Your task to perform on an android device: open app "Firefox Browser" (install if not already installed) and go to login screen Image 0: 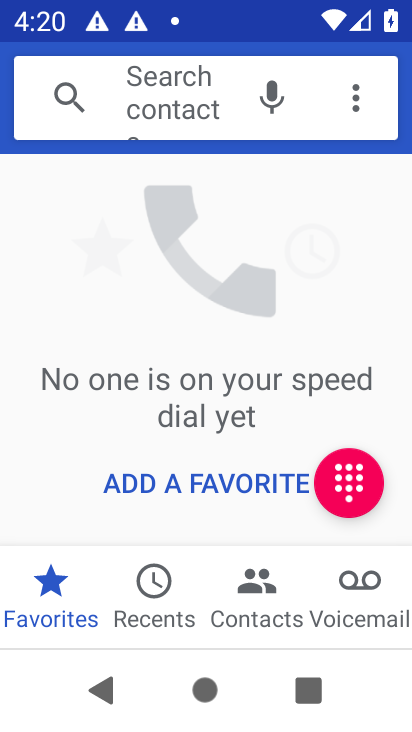
Step 0: press home button
Your task to perform on an android device: open app "Firefox Browser" (install if not already installed) and go to login screen Image 1: 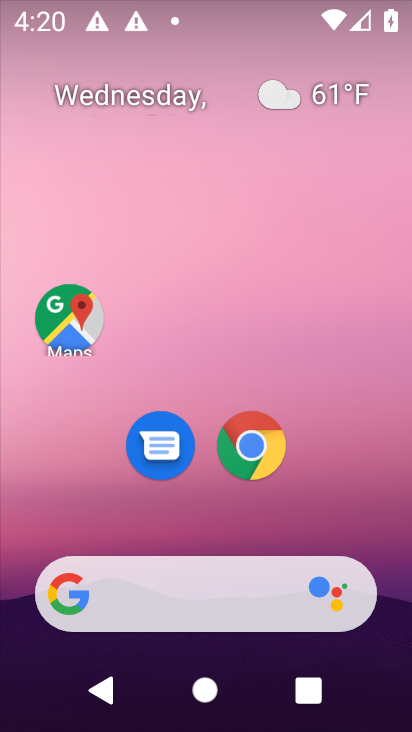
Step 1: drag from (208, 544) to (272, 16)
Your task to perform on an android device: open app "Firefox Browser" (install if not already installed) and go to login screen Image 2: 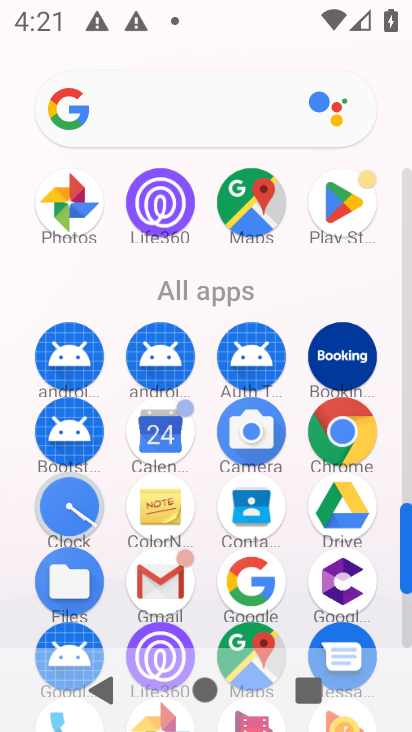
Step 2: click (342, 227)
Your task to perform on an android device: open app "Firefox Browser" (install if not already installed) and go to login screen Image 3: 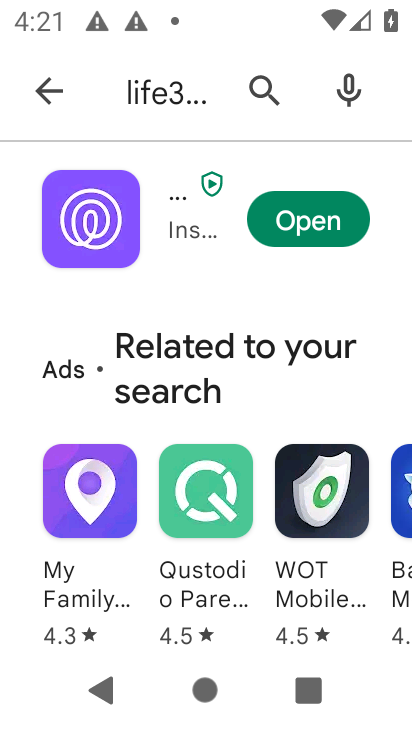
Step 3: click (162, 103)
Your task to perform on an android device: open app "Firefox Browser" (install if not already installed) and go to login screen Image 4: 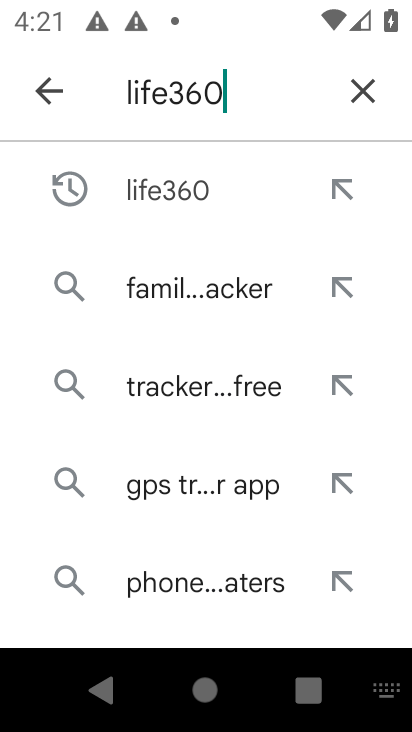
Step 4: click (359, 98)
Your task to perform on an android device: open app "Firefox Browser" (install if not already installed) and go to login screen Image 5: 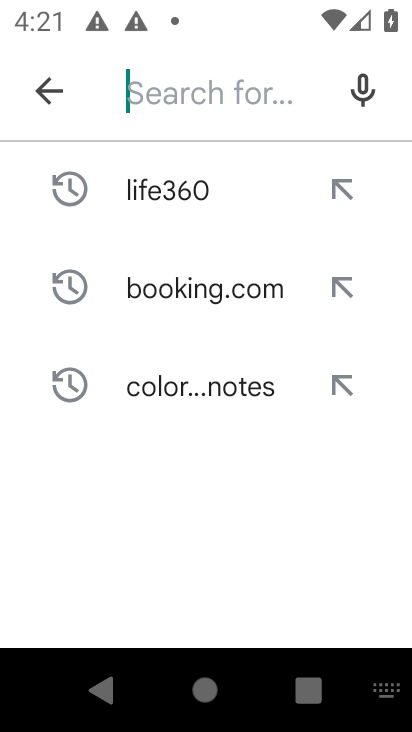
Step 5: type "firefox browser"
Your task to perform on an android device: open app "Firefox Browser" (install if not already installed) and go to login screen Image 6: 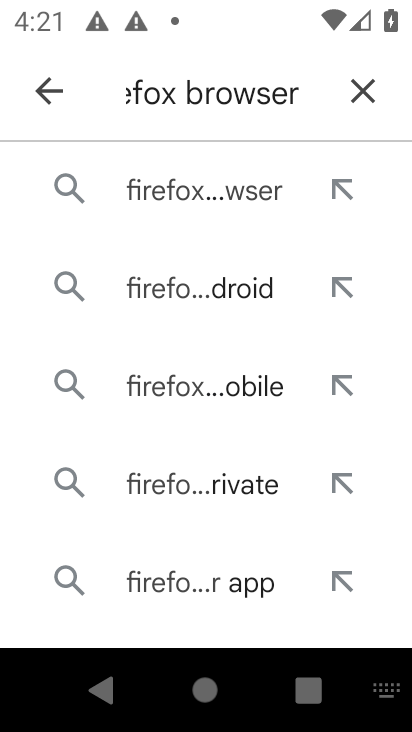
Step 6: click (203, 212)
Your task to perform on an android device: open app "Firefox Browser" (install if not already installed) and go to login screen Image 7: 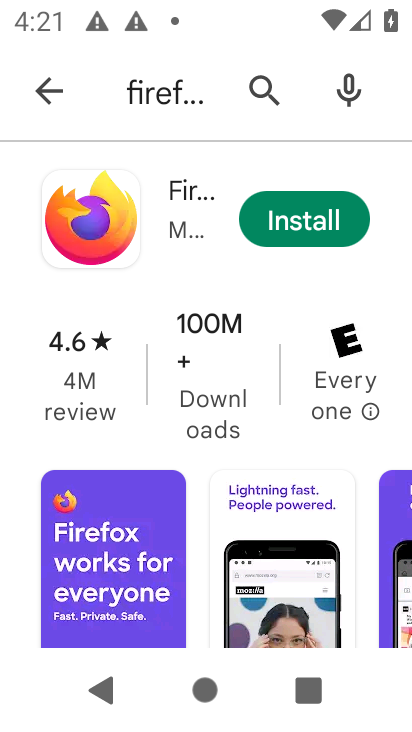
Step 7: click (321, 229)
Your task to perform on an android device: open app "Firefox Browser" (install if not already installed) and go to login screen Image 8: 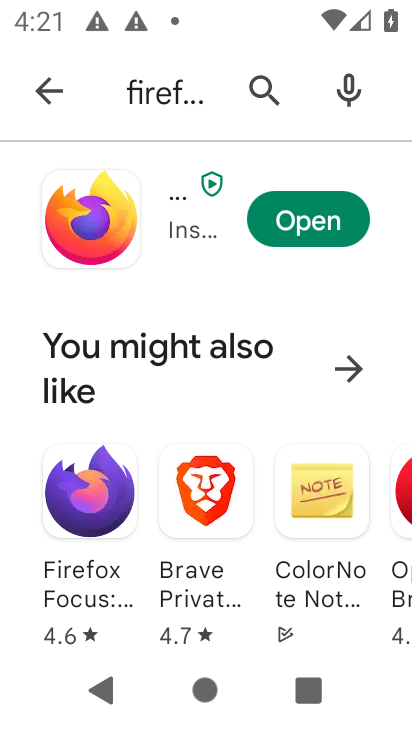
Step 8: click (320, 209)
Your task to perform on an android device: open app "Firefox Browser" (install if not already installed) and go to login screen Image 9: 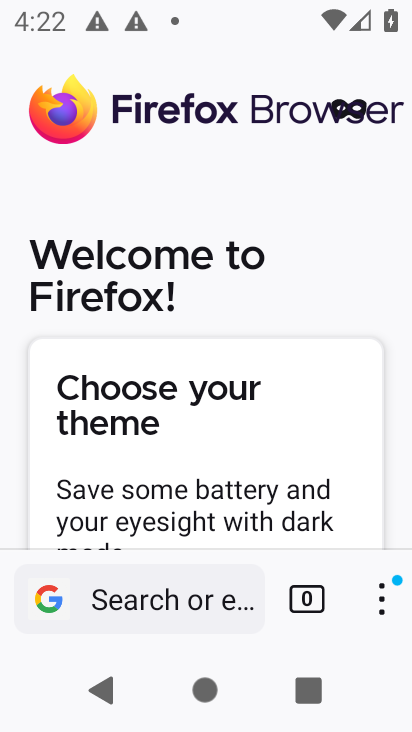
Step 9: drag from (256, 484) to (278, 1)
Your task to perform on an android device: open app "Firefox Browser" (install if not already installed) and go to login screen Image 10: 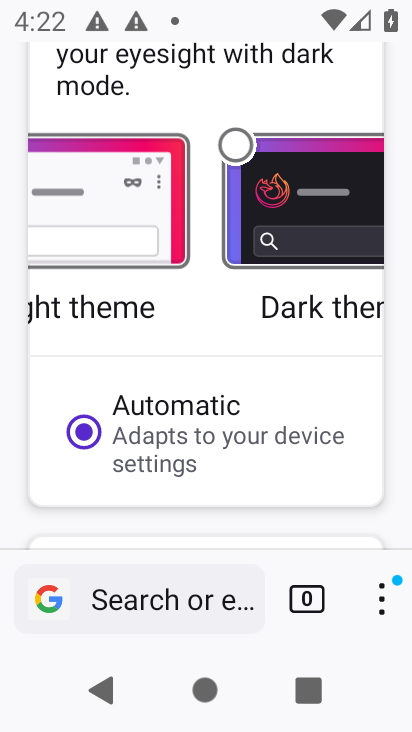
Step 10: drag from (275, 523) to (292, 2)
Your task to perform on an android device: open app "Firefox Browser" (install if not already installed) and go to login screen Image 11: 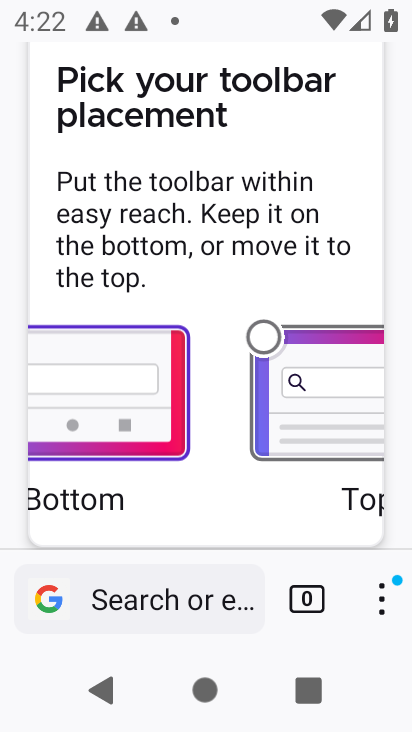
Step 11: drag from (182, 492) to (212, 0)
Your task to perform on an android device: open app "Firefox Browser" (install if not already installed) and go to login screen Image 12: 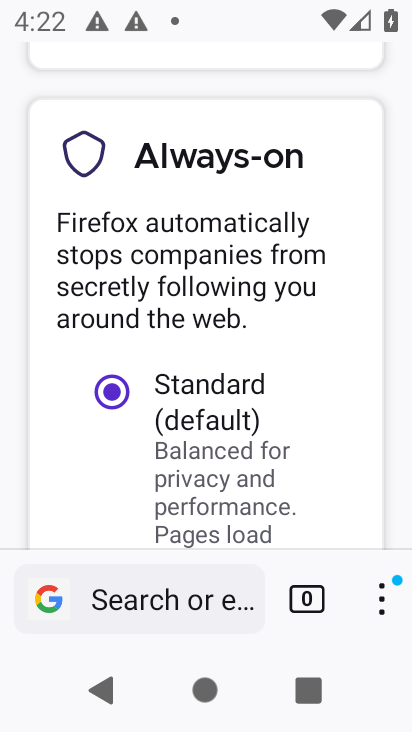
Step 12: drag from (222, 463) to (274, 19)
Your task to perform on an android device: open app "Firefox Browser" (install if not already installed) and go to login screen Image 13: 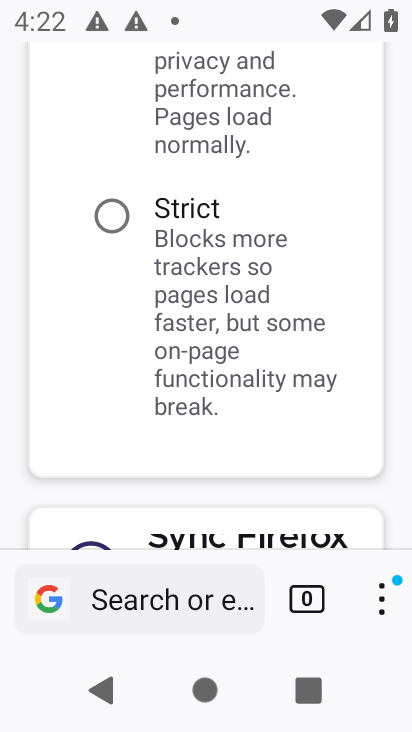
Step 13: drag from (207, 491) to (241, 4)
Your task to perform on an android device: open app "Firefox Browser" (install if not already installed) and go to login screen Image 14: 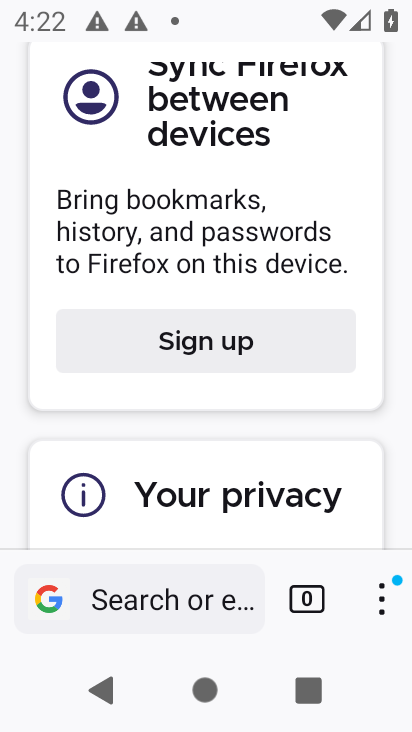
Step 14: click (199, 339)
Your task to perform on an android device: open app "Firefox Browser" (install if not already installed) and go to login screen Image 15: 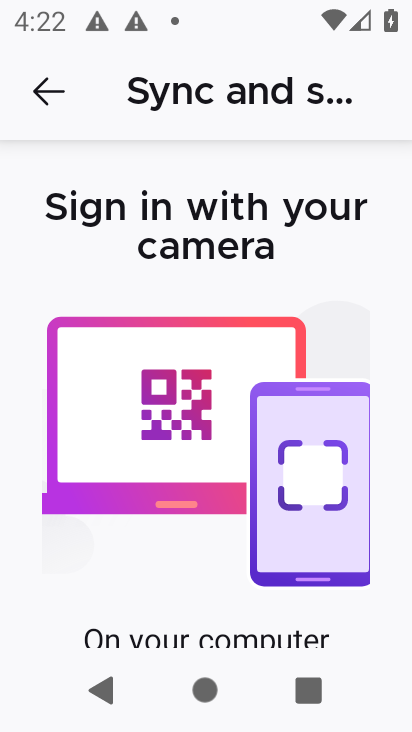
Step 15: drag from (183, 508) to (255, 14)
Your task to perform on an android device: open app "Firefox Browser" (install if not already installed) and go to login screen Image 16: 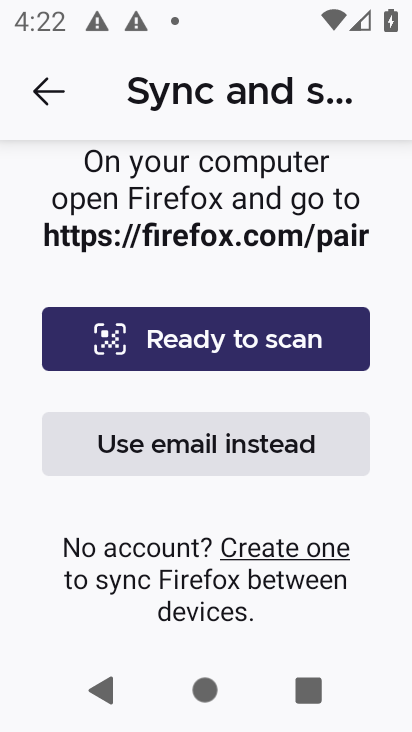
Step 16: click (206, 445)
Your task to perform on an android device: open app "Firefox Browser" (install if not already installed) and go to login screen Image 17: 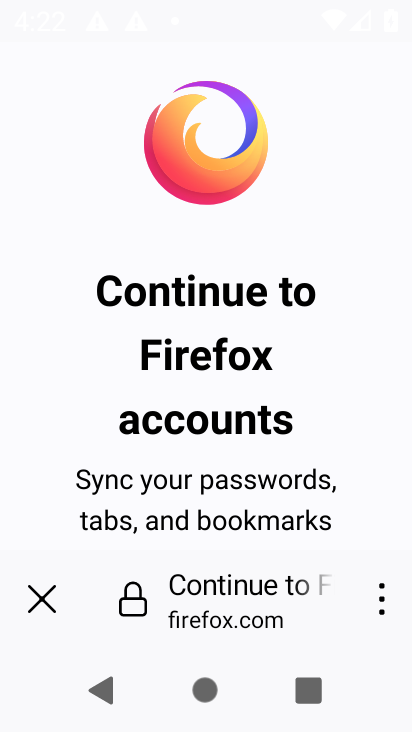
Step 17: task complete